Your task to perform on an android device: Go to Android settings Image 0: 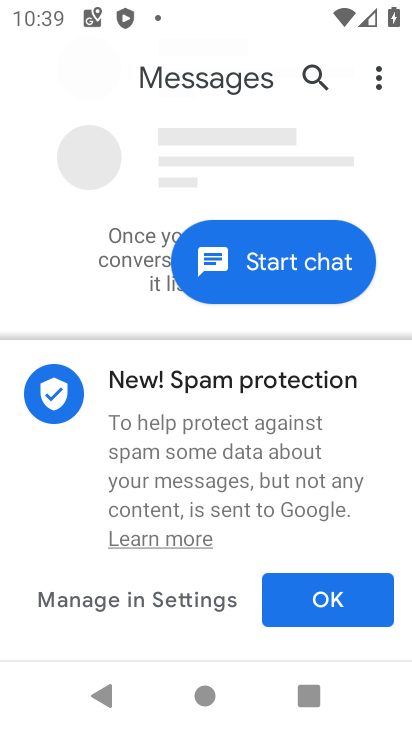
Step 0: press home button
Your task to perform on an android device: Go to Android settings Image 1: 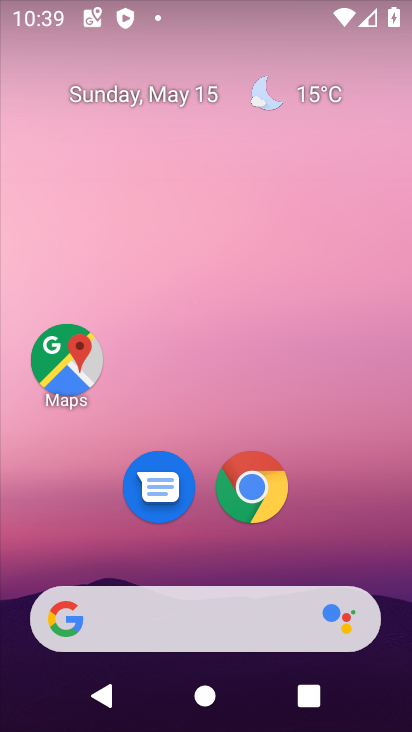
Step 1: drag from (397, 639) to (355, 70)
Your task to perform on an android device: Go to Android settings Image 2: 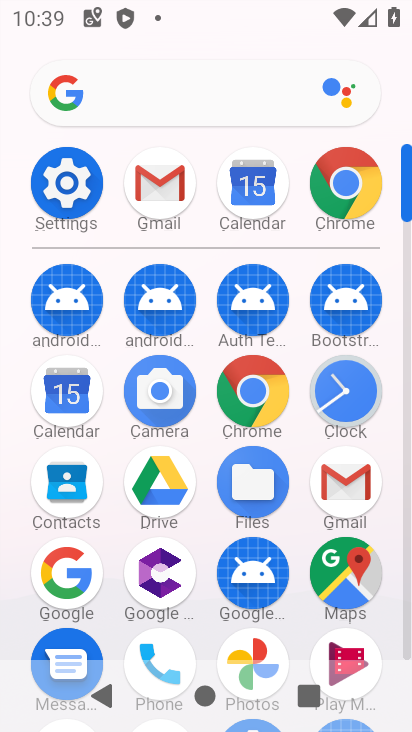
Step 2: click (407, 645)
Your task to perform on an android device: Go to Android settings Image 3: 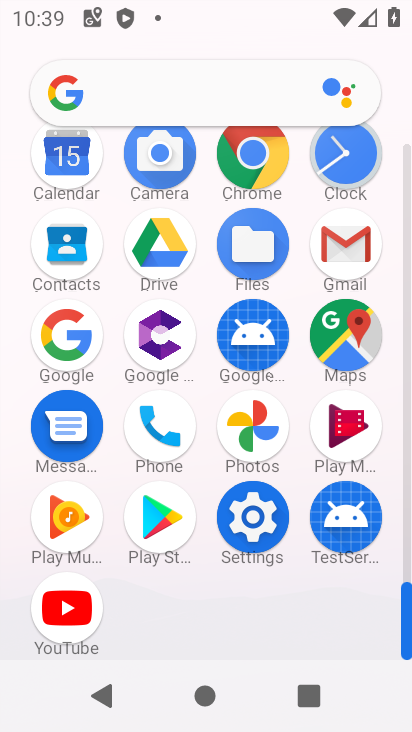
Step 3: click (255, 517)
Your task to perform on an android device: Go to Android settings Image 4: 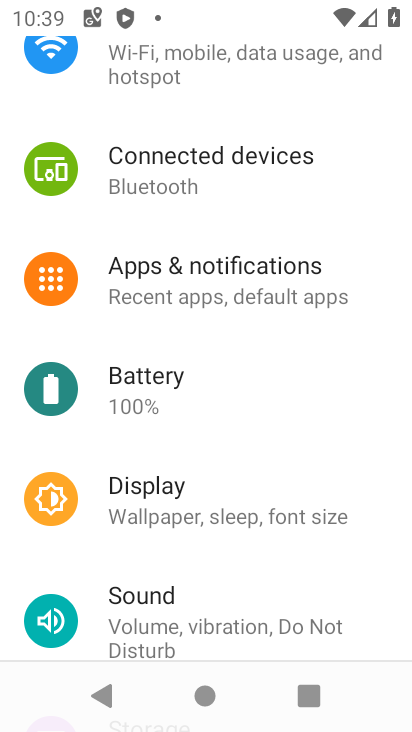
Step 4: drag from (367, 623) to (379, 114)
Your task to perform on an android device: Go to Android settings Image 5: 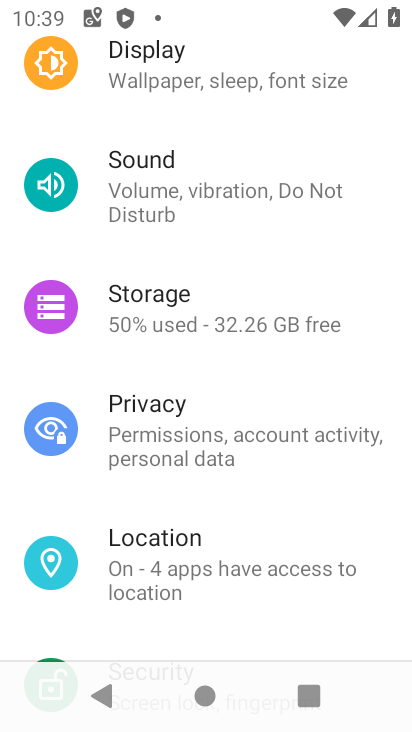
Step 5: drag from (363, 613) to (383, 187)
Your task to perform on an android device: Go to Android settings Image 6: 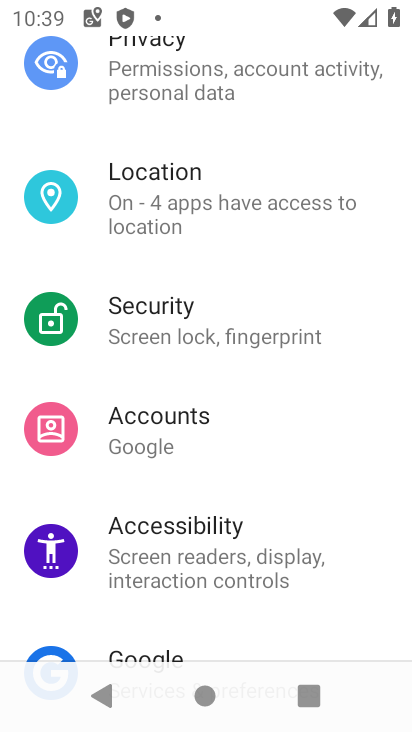
Step 6: drag from (347, 640) to (369, 214)
Your task to perform on an android device: Go to Android settings Image 7: 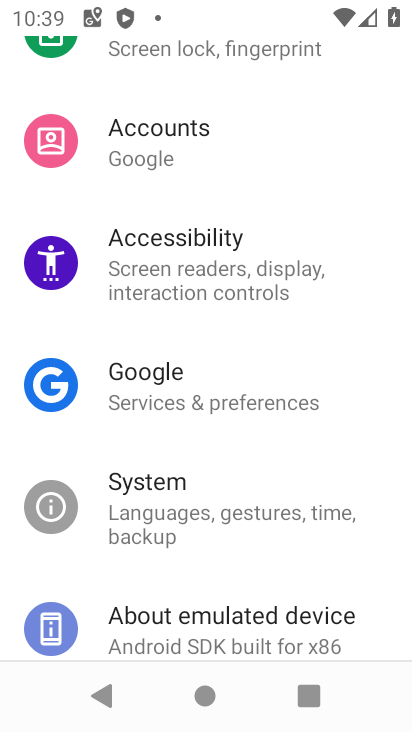
Step 7: drag from (364, 623) to (365, 252)
Your task to perform on an android device: Go to Android settings Image 8: 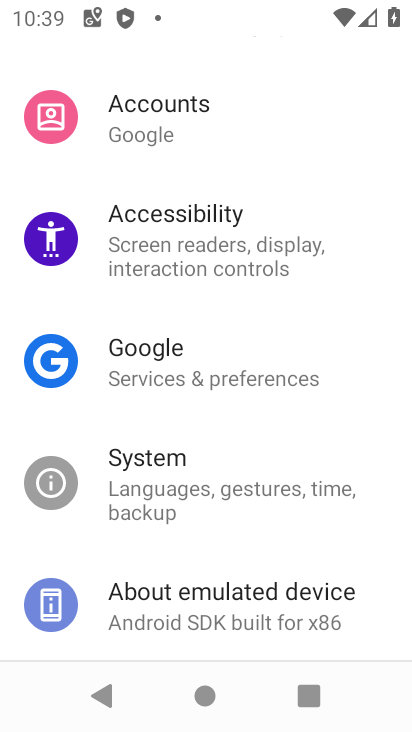
Step 8: click (157, 597)
Your task to perform on an android device: Go to Android settings Image 9: 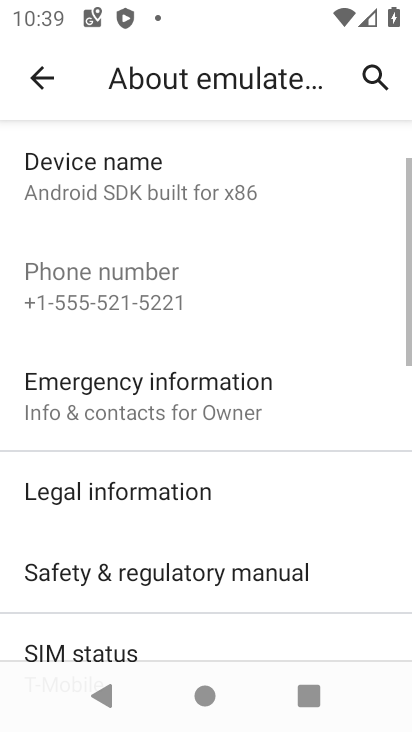
Step 9: task complete